Your task to perform on an android device: turn off notifications settings in the gmail app Image 0: 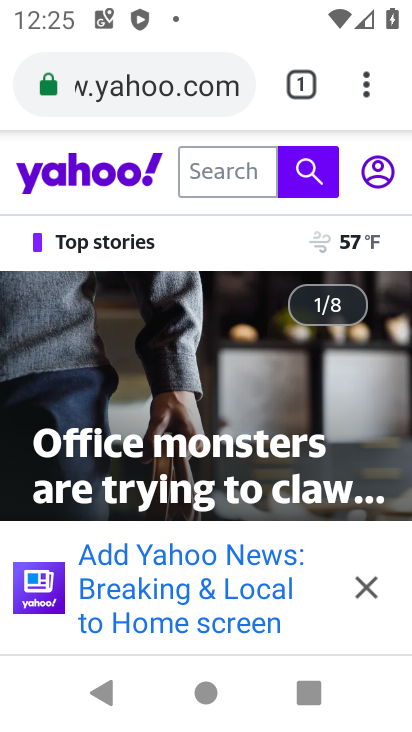
Step 0: press back button
Your task to perform on an android device: turn off notifications settings in the gmail app Image 1: 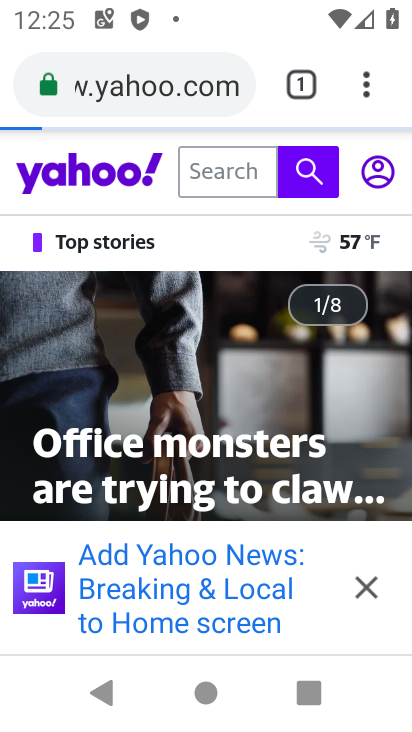
Step 1: press home button
Your task to perform on an android device: turn off notifications settings in the gmail app Image 2: 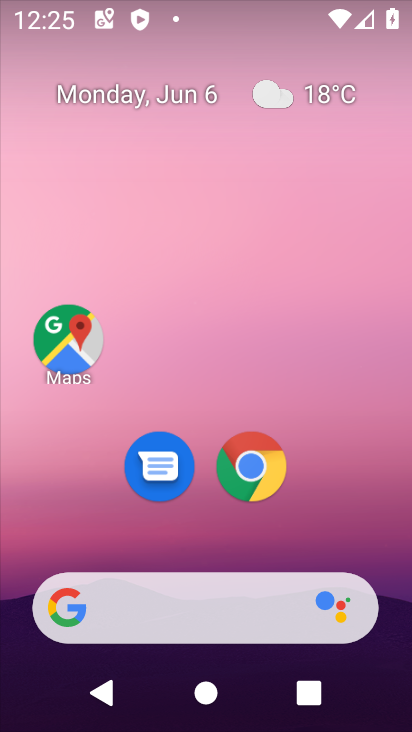
Step 2: drag from (356, 528) to (230, 15)
Your task to perform on an android device: turn off notifications settings in the gmail app Image 3: 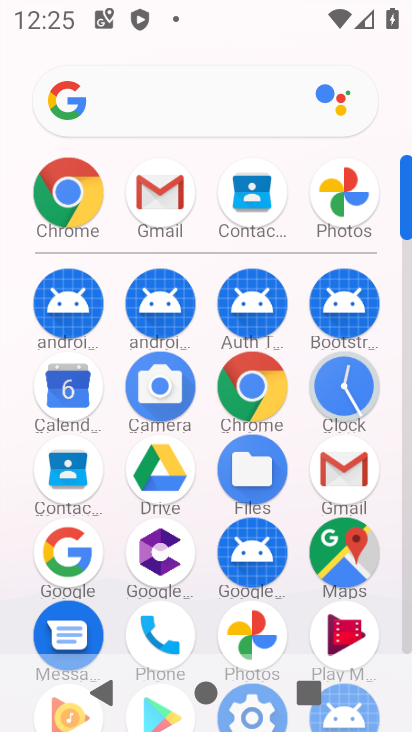
Step 3: drag from (16, 571) to (14, 308)
Your task to perform on an android device: turn off notifications settings in the gmail app Image 4: 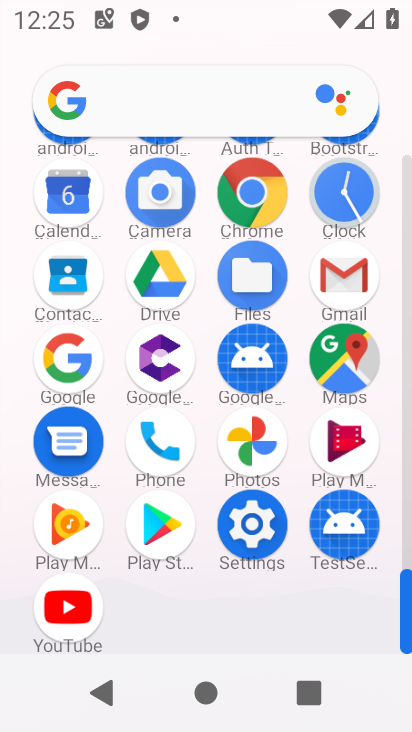
Step 4: click (344, 273)
Your task to perform on an android device: turn off notifications settings in the gmail app Image 5: 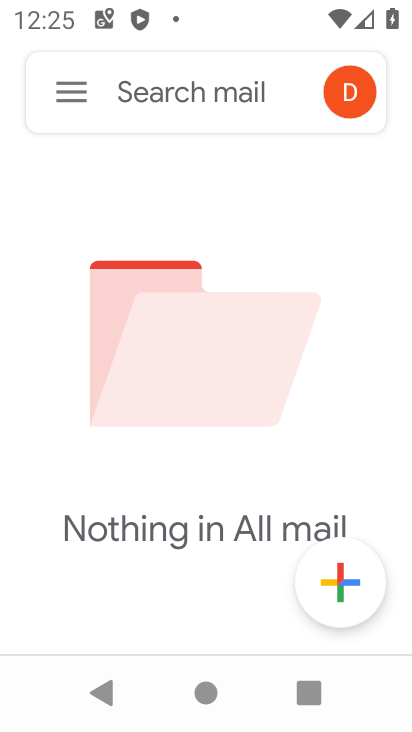
Step 5: click (53, 75)
Your task to perform on an android device: turn off notifications settings in the gmail app Image 6: 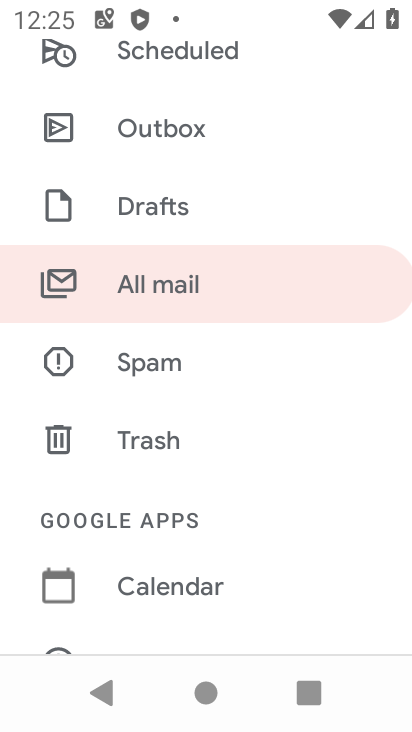
Step 6: drag from (228, 551) to (247, 158)
Your task to perform on an android device: turn off notifications settings in the gmail app Image 7: 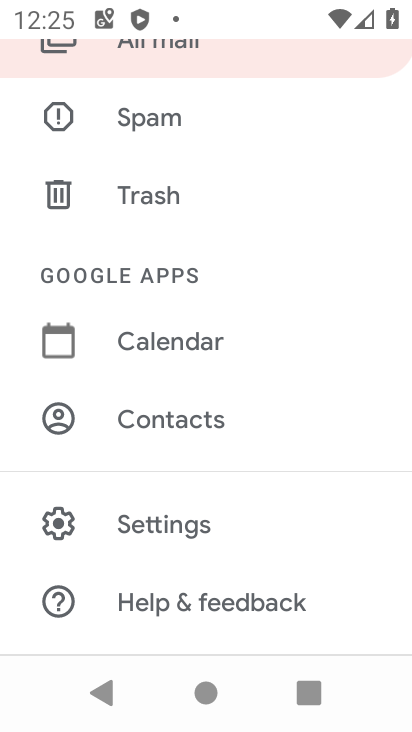
Step 7: click (146, 519)
Your task to perform on an android device: turn off notifications settings in the gmail app Image 8: 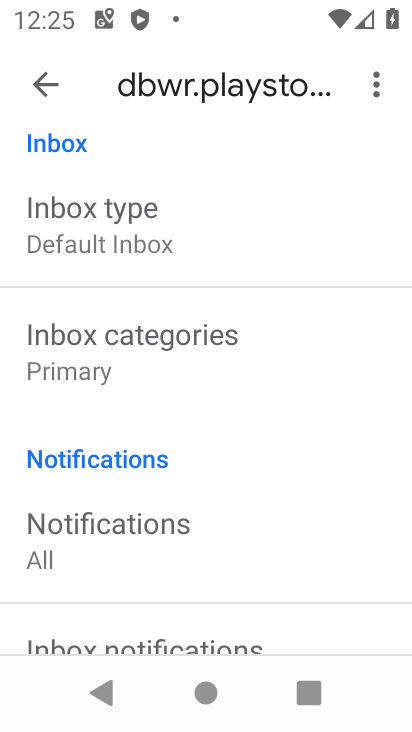
Step 8: drag from (238, 576) to (233, 218)
Your task to perform on an android device: turn off notifications settings in the gmail app Image 9: 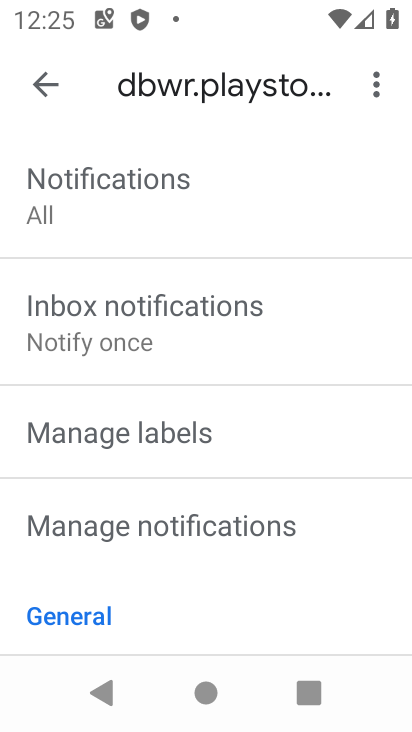
Step 9: click (166, 518)
Your task to perform on an android device: turn off notifications settings in the gmail app Image 10: 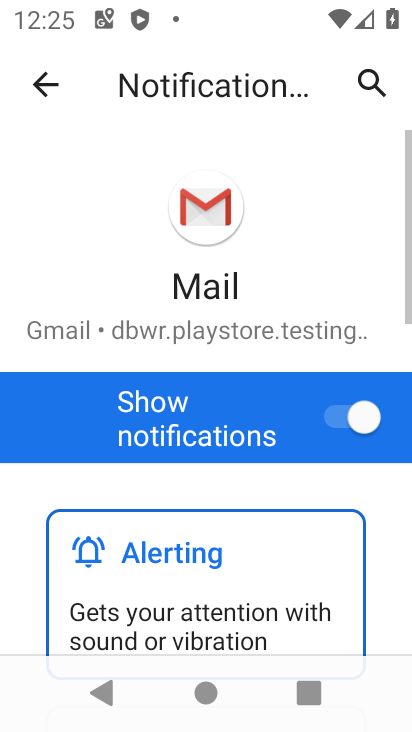
Step 10: click (352, 407)
Your task to perform on an android device: turn off notifications settings in the gmail app Image 11: 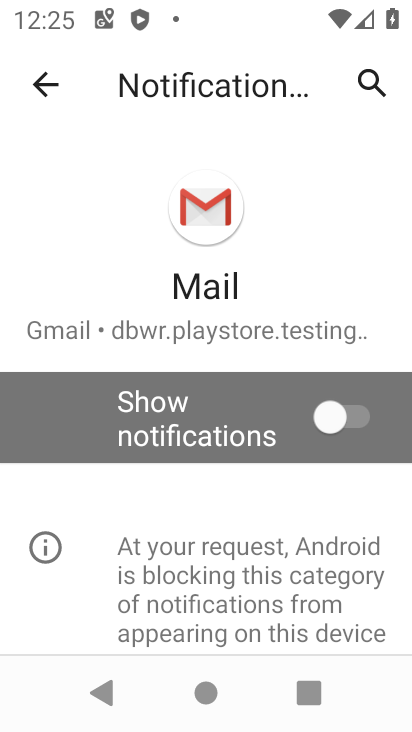
Step 11: task complete